Your task to perform on an android device: Turn off the flashlight Image 0: 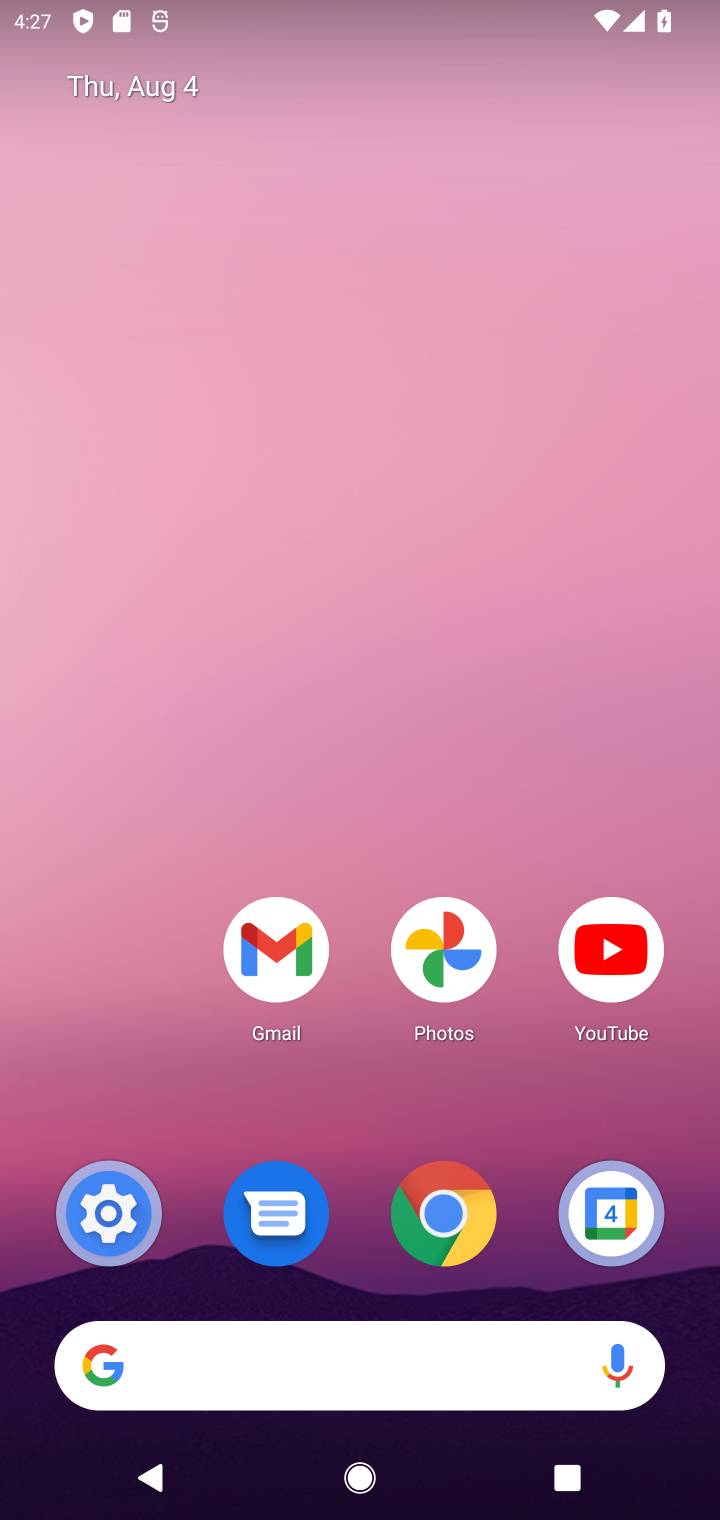
Step 0: press home button
Your task to perform on an android device: Turn off the flashlight Image 1: 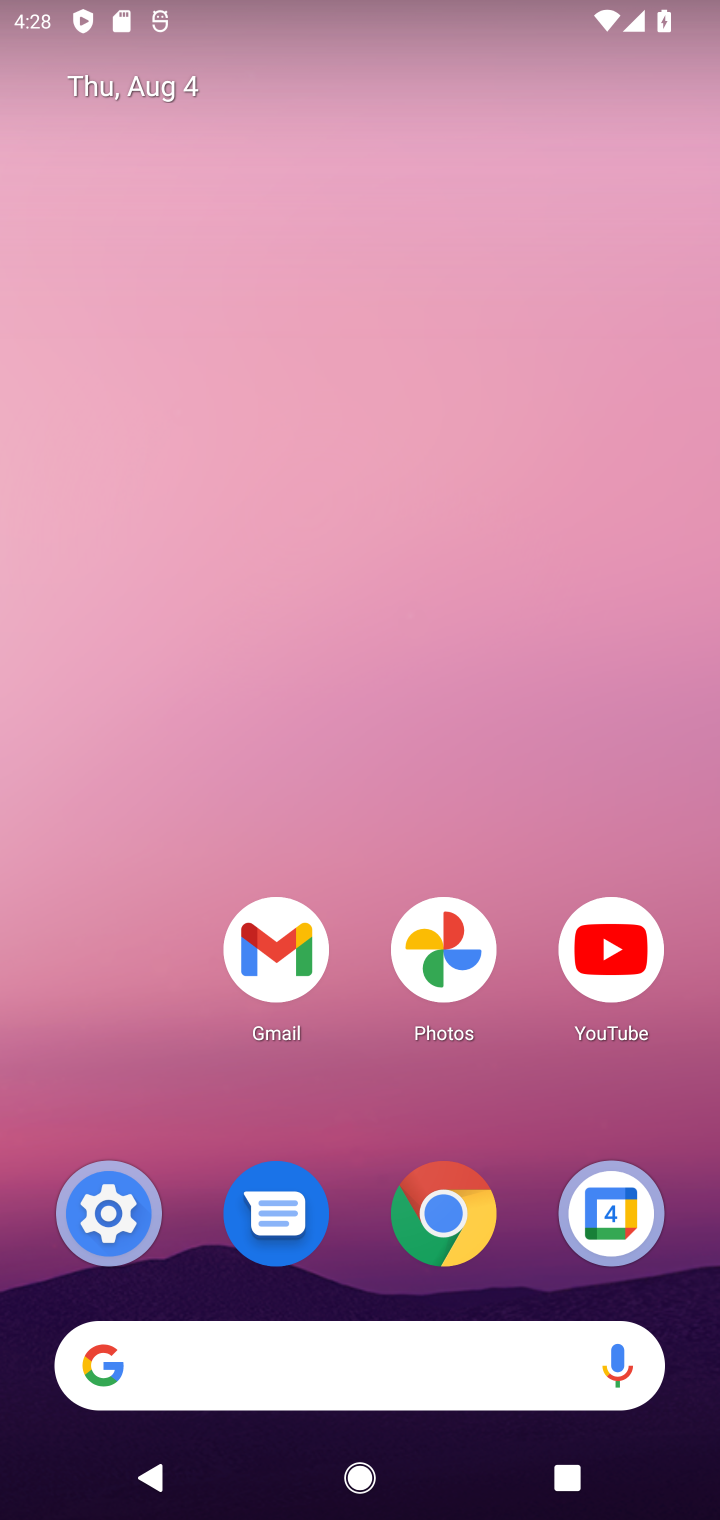
Step 1: drag from (328, 23) to (320, 865)
Your task to perform on an android device: Turn off the flashlight Image 2: 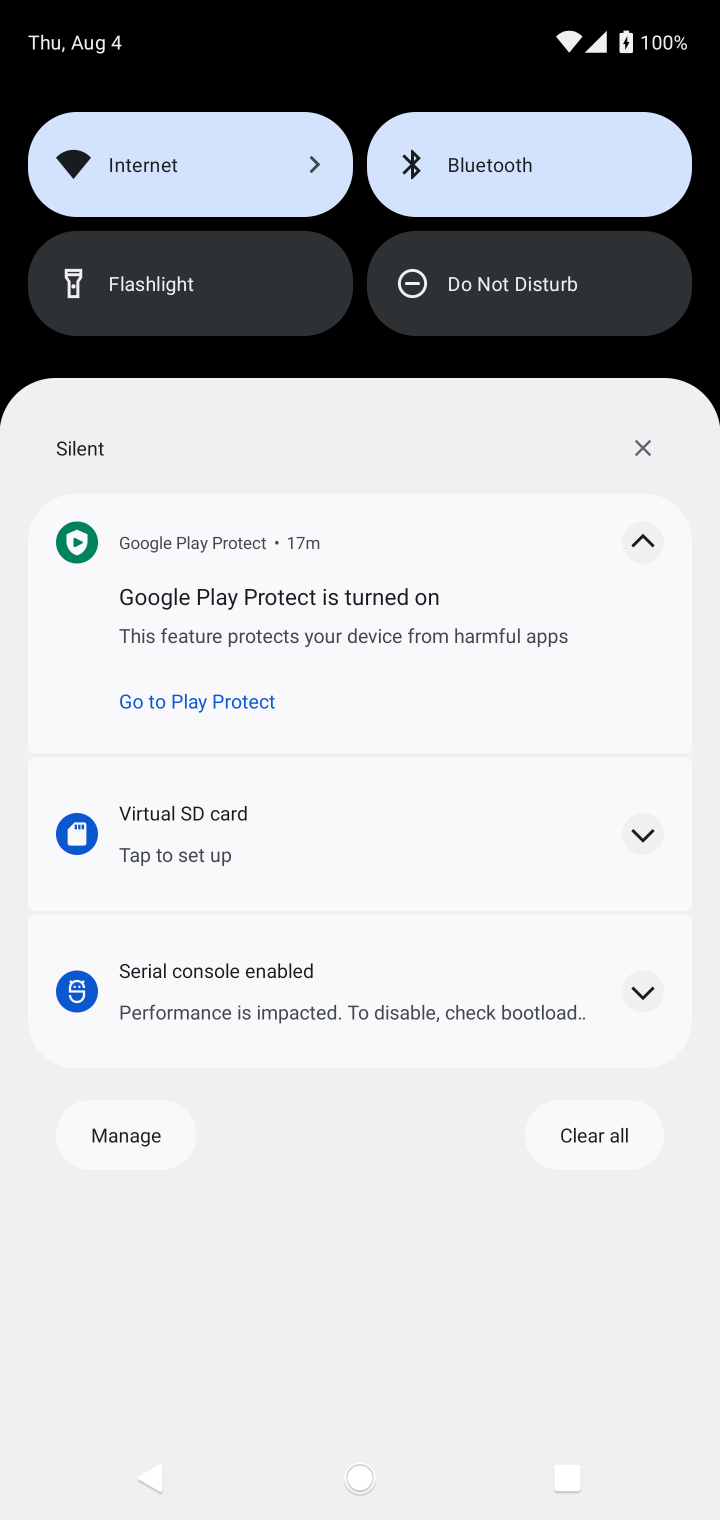
Step 2: drag from (364, 121) to (401, 833)
Your task to perform on an android device: Turn off the flashlight Image 3: 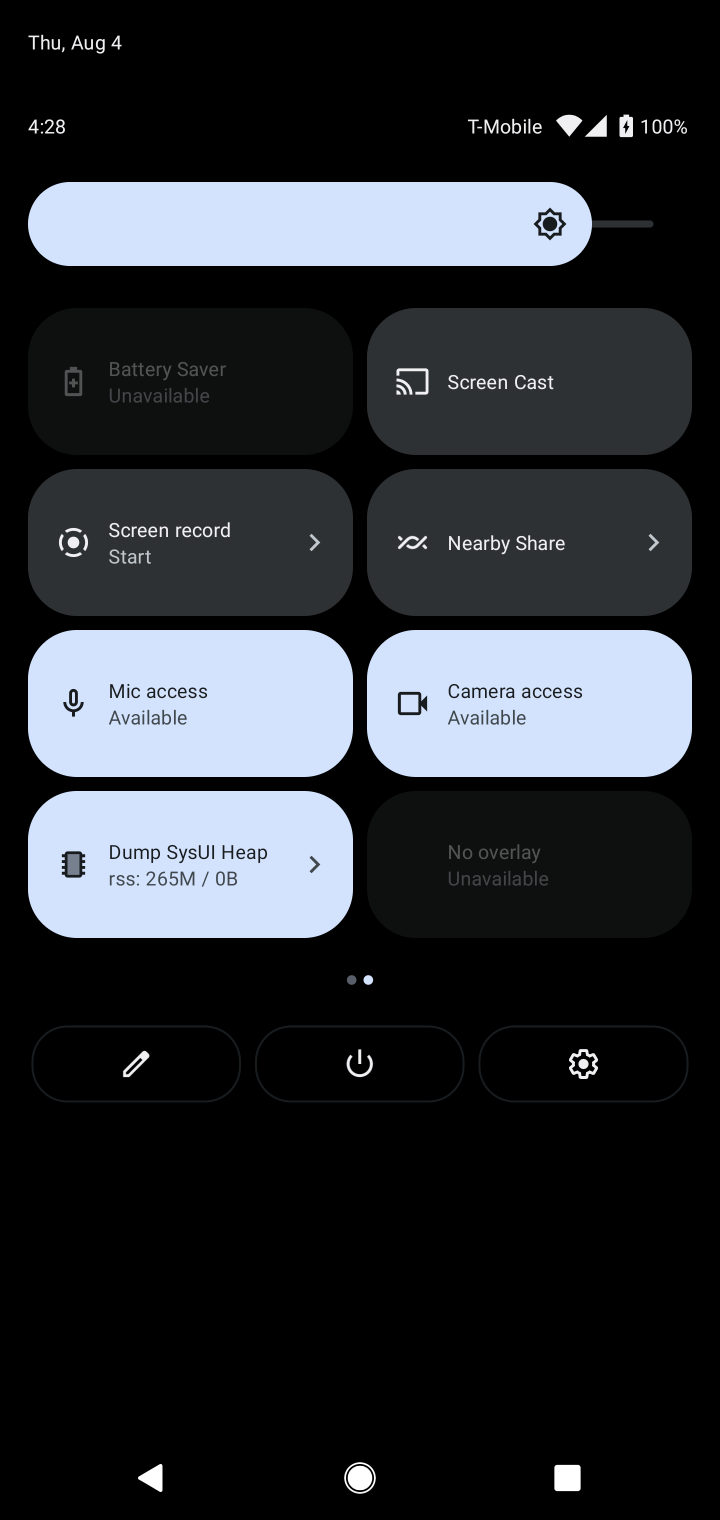
Step 3: click (124, 1066)
Your task to perform on an android device: Turn off the flashlight Image 4: 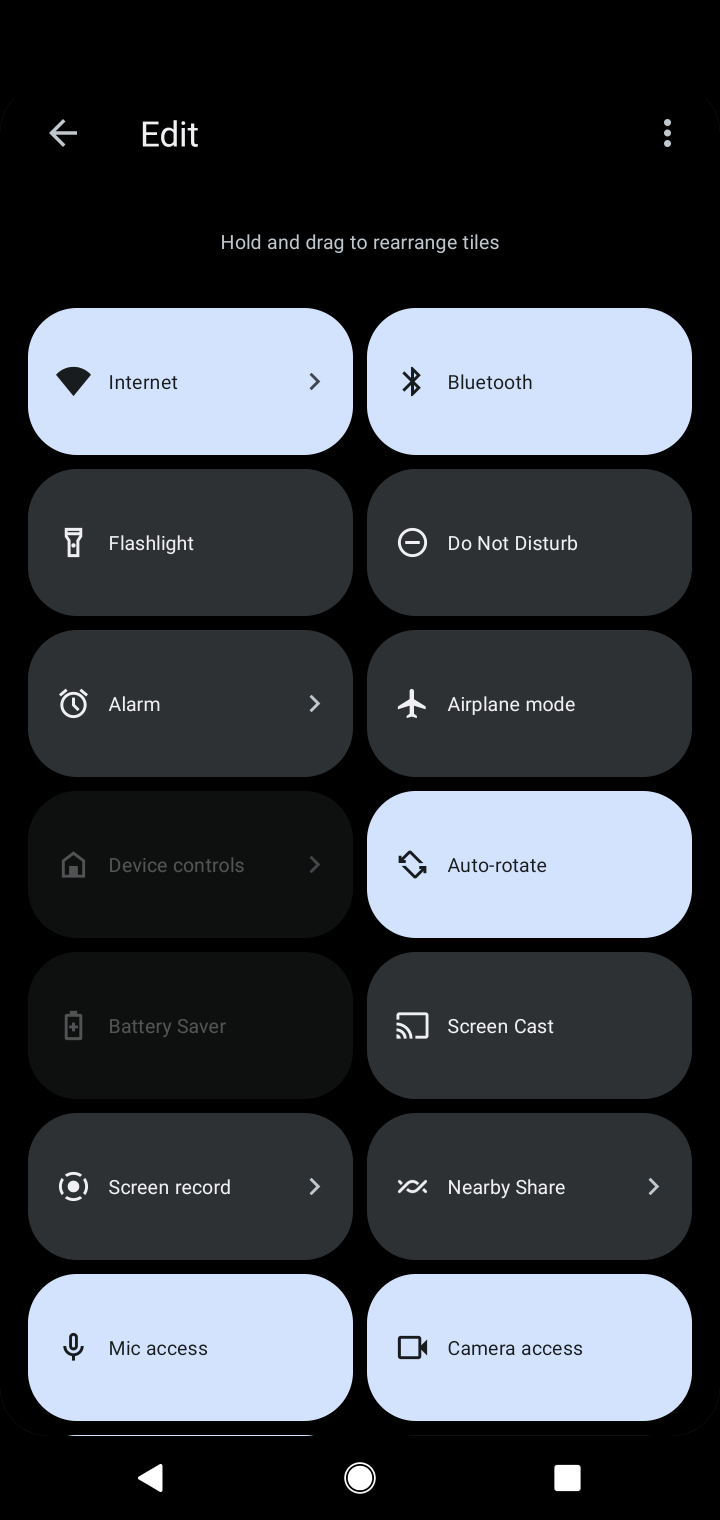
Step 4: task complete